Your task to perform on an android device: change the clock display to analog Image 0: 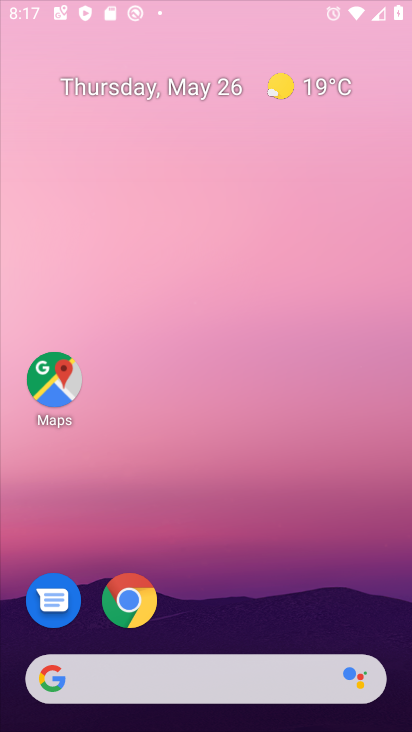
Step 0: press home button
Your task to perform on an android device: change the clock display to analog Image 1: 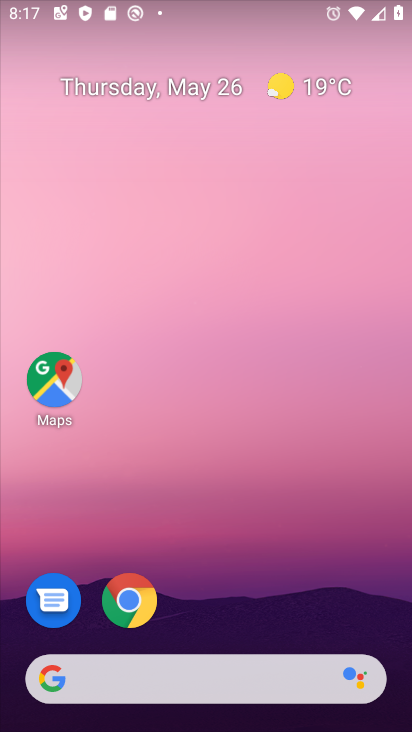
Step 1: drag from (261, 598) to (263, 64)
Your task to perform on an android device: change the clock display to analog Image 2: 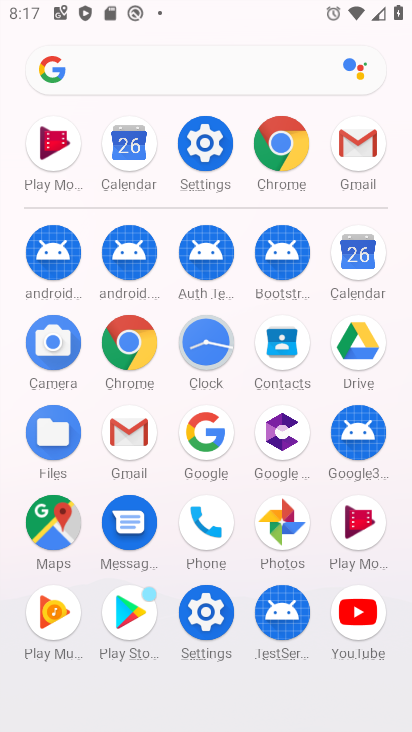
Step 2: click (212, 357)
Your task to perform on an android device: change the clock display to analog Image 3: 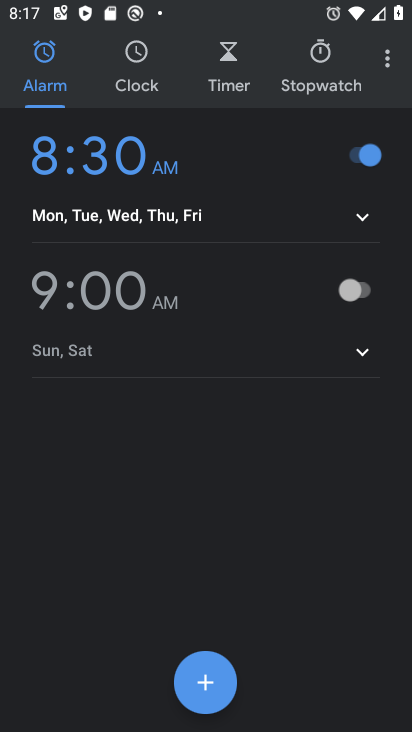
Step 3: click (387, 55)
Your task to perform on an android device: change the clock display to analog Image 4: 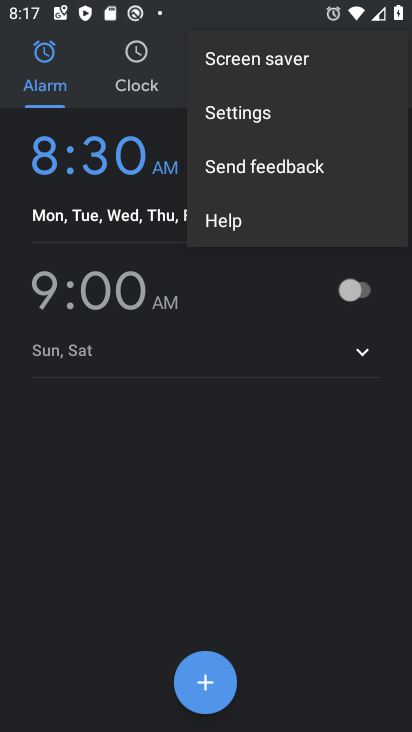
Step 4: click (246, 112)
Your task to perform on an android device: change the clock display to analog Image 5: 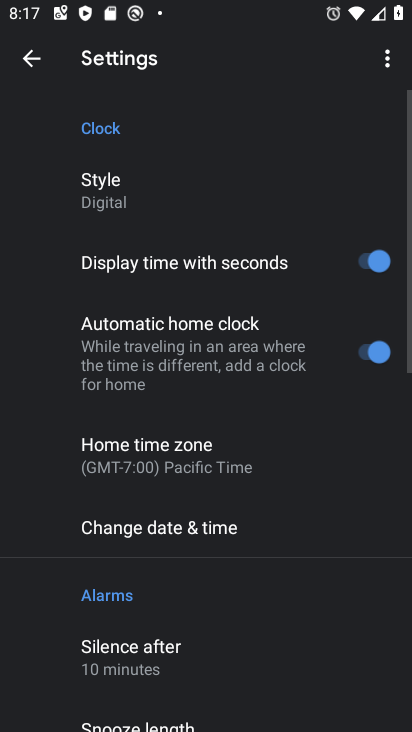
Step 5: click (106, 197)
Your task to perform on an android device: change the clock display to analog Image 6: 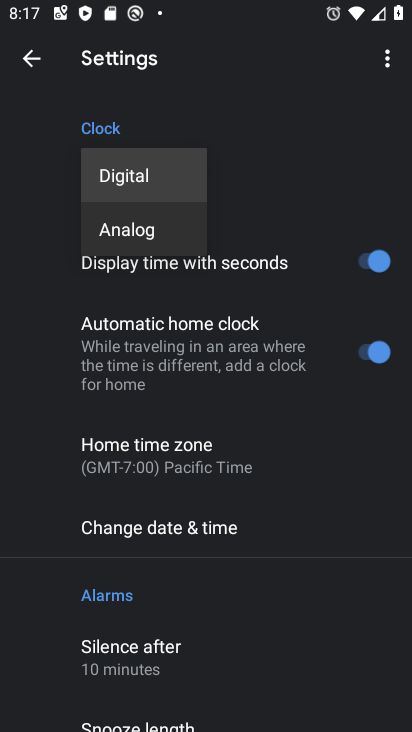
Step 6: click (126, 232)
Your task to perform on an android device: change the clock display to analog Image 7: 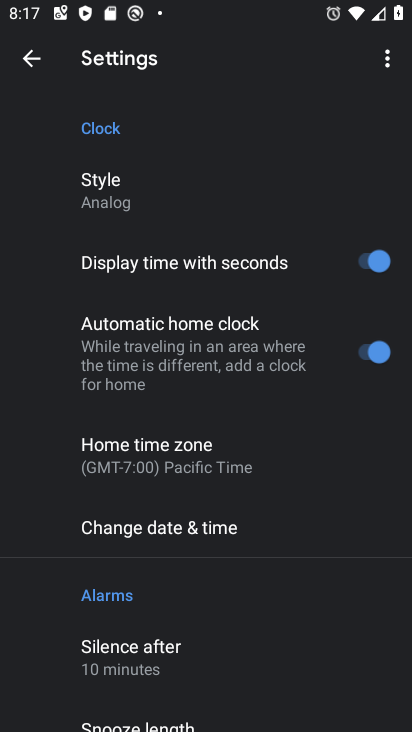
Step 7: task complete